Your task to perform on an android device: Open location settings Image 0: 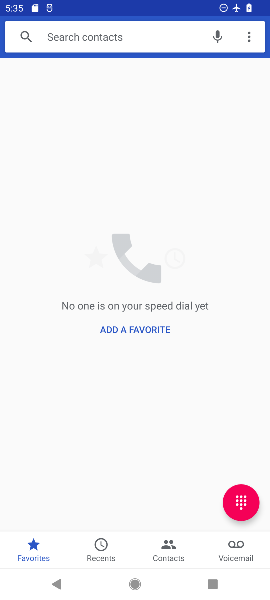
Step 0: press home button
Your task to perform on an android device: Open location settings Image 1: 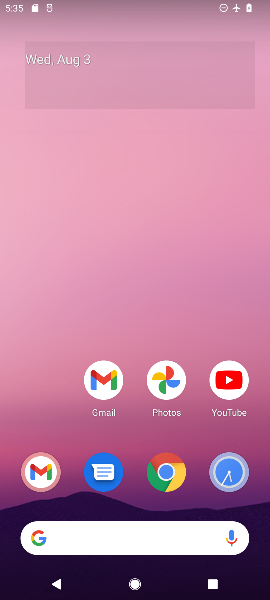
Step 1: drag from (190, 514) to (102, 73)
Your task to perform on an android device: Open location settings Image 2: 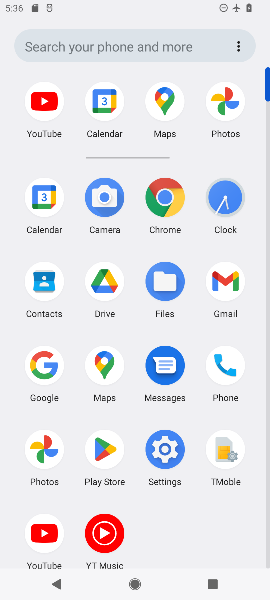
Step 2: click (172, 455)
Your task to perform on an android device: Open location settings Image 3: 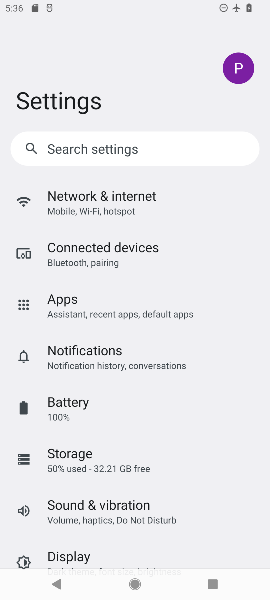
Step 3: drag from (108, 482) to (129, 150)
Your task to perform on an android device: Open location settings Image 4: 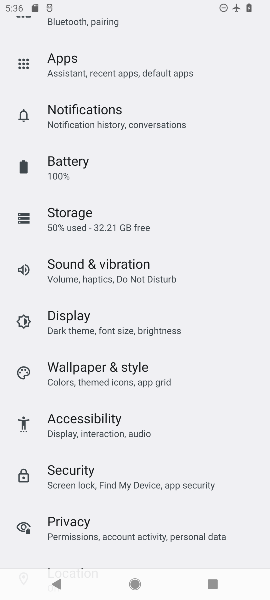
Step 4: drag from (105, 569) to (141, 198)
Your task to perform on an android device: Open location settings Image 5: 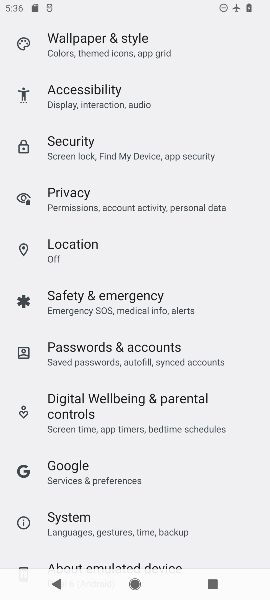
Step 5: click (74, 232)
Your task to perform on an android device: Open location settings Image 6: 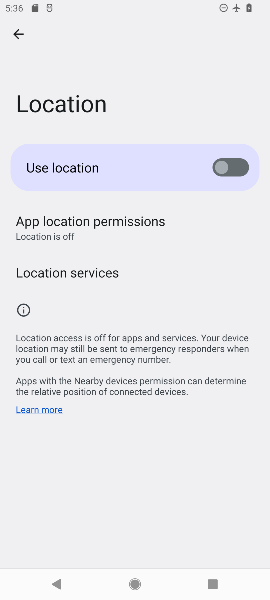
Step 6: task complete